Your task to perform on an android device: Open Google Chrome and click the shortcut for Amazon.com Image 0: 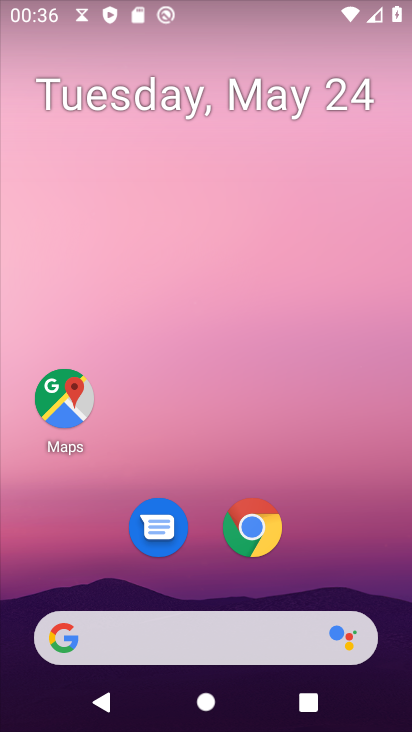
Step 0: press home button
Your task to perform on an android device: Open Google Chrome and click the shortcut for Amazon.com Image 1: 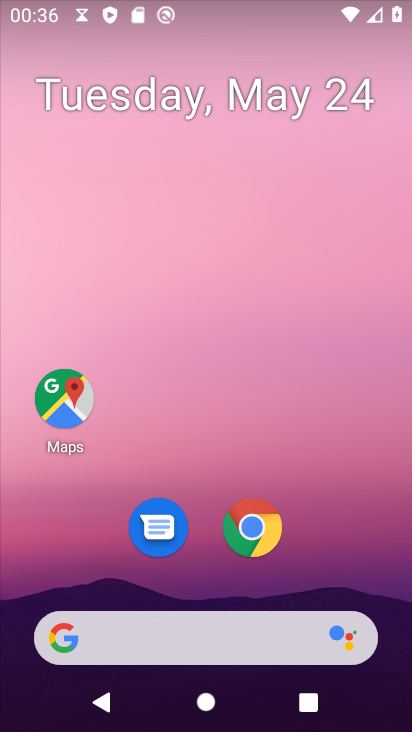
Step 1: click (252, 531)
Your task to perform on an android device: Open Google Chrome and click the shortcut for Amazon.com Image 2: 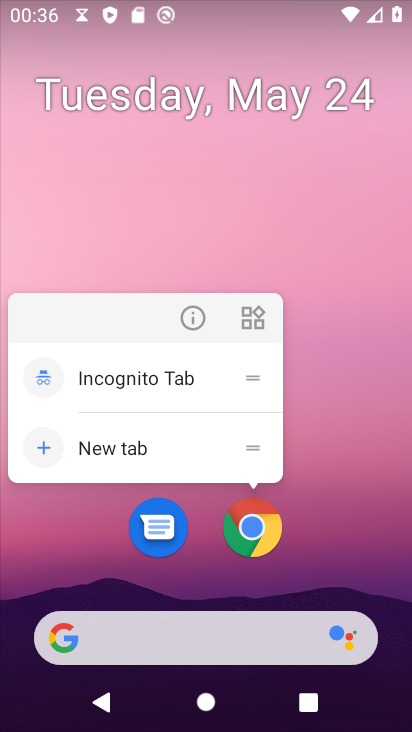
Step 2: click (265, 550)
Your task to perform on an android device: Open Google Chrome and click the shortcut for Amazon.com Image 3: 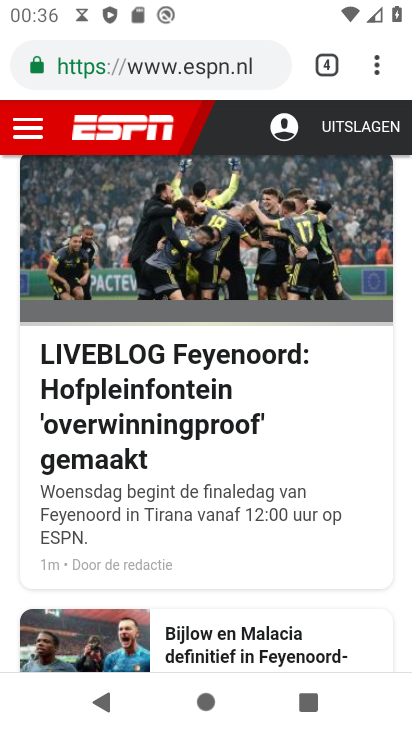
Step 3: drag from (369, 67) to (312, 124)
Your task to perform on an android device: Open Google Chrome and click the shortcut for Amazon.com Image 4: 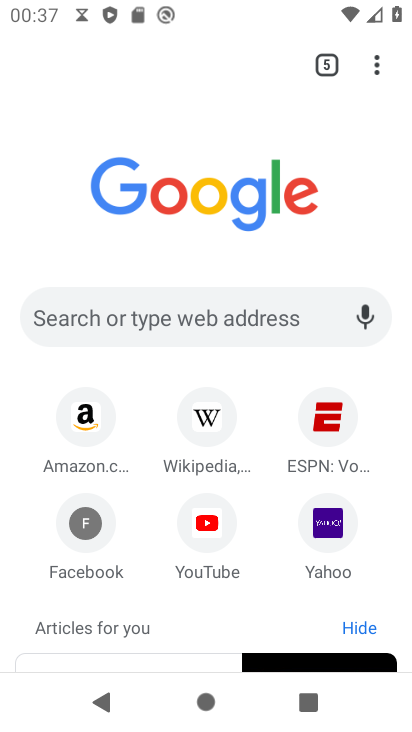
Step 4: click (90, 423)
Your task to perform on an android device: Open Google Chrome and click the shortcut for Amazon.com Image 5: 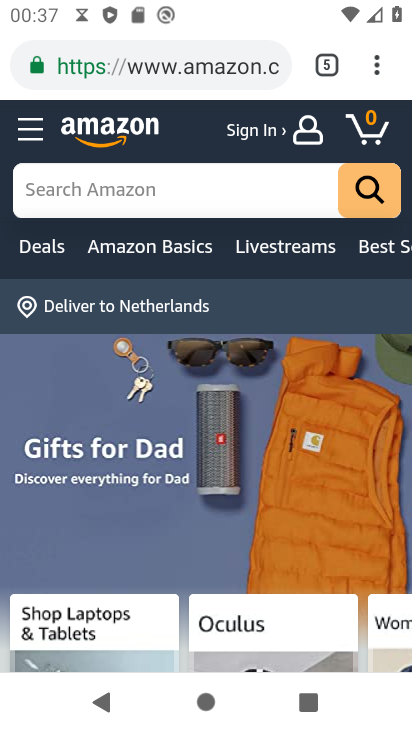
Step 5: task complete